Your task to perform on an android device: toggle notifications settings in the gmail app Image 0: 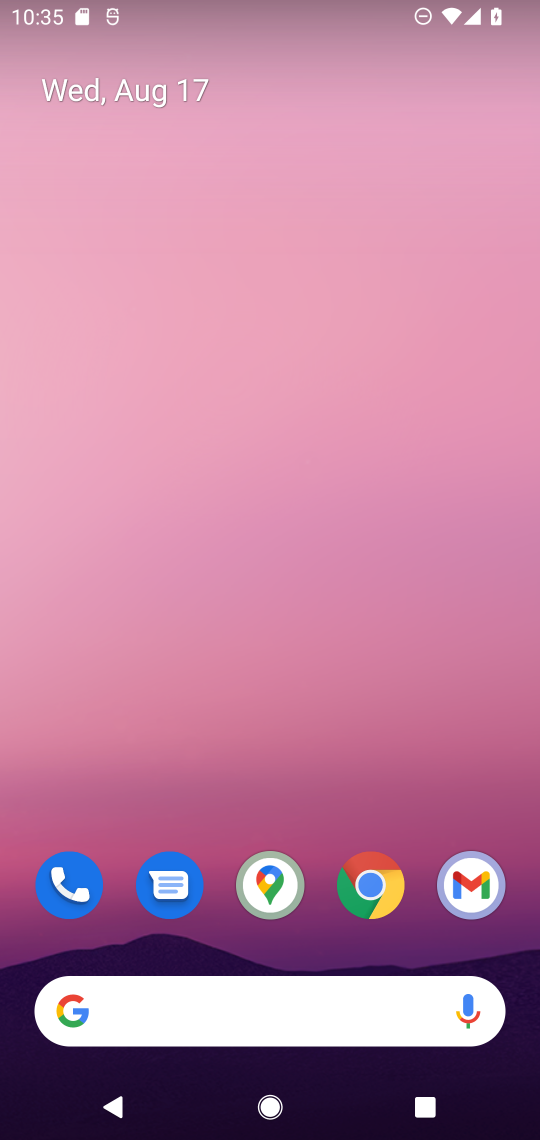
Step 0: click (467, 885)
Your task to perform on an android device: toggle notifications settings in the gmail app Image 1: 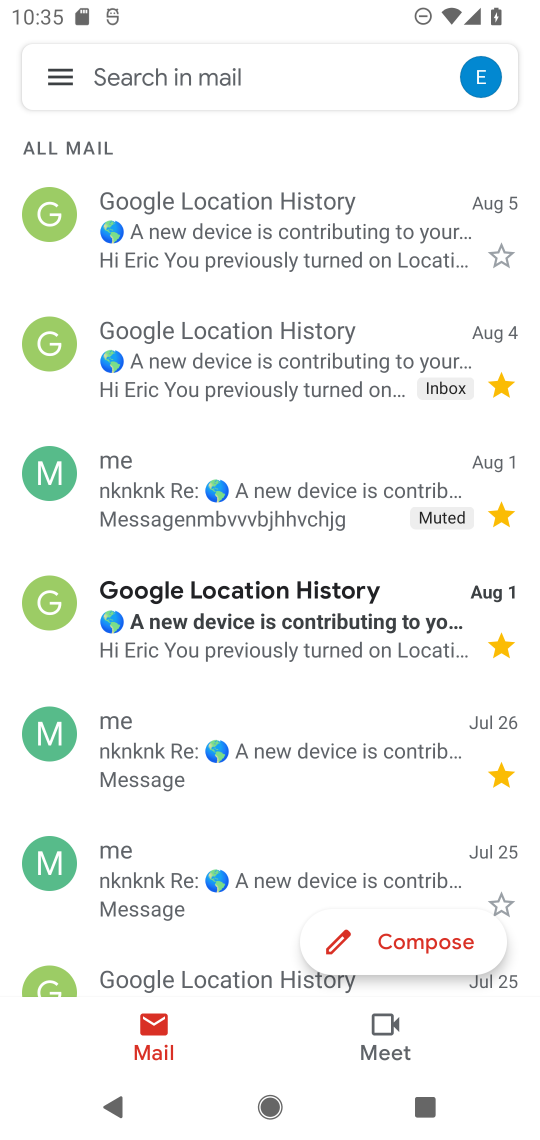
Step 1: click (59, 81)
Your task to perform on an android device: toggle notifications settings in the gmail app Image 2: 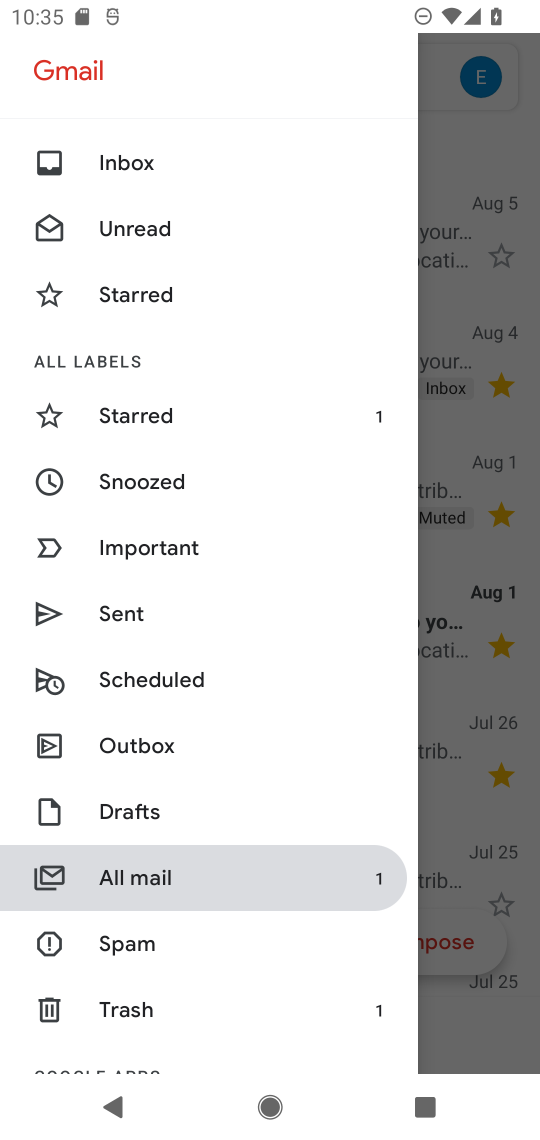
Step 2: drag from (272, 938) to (273, 350)
Your task to perform on an android device: toggle notifications settings in the gmail app Image 3: 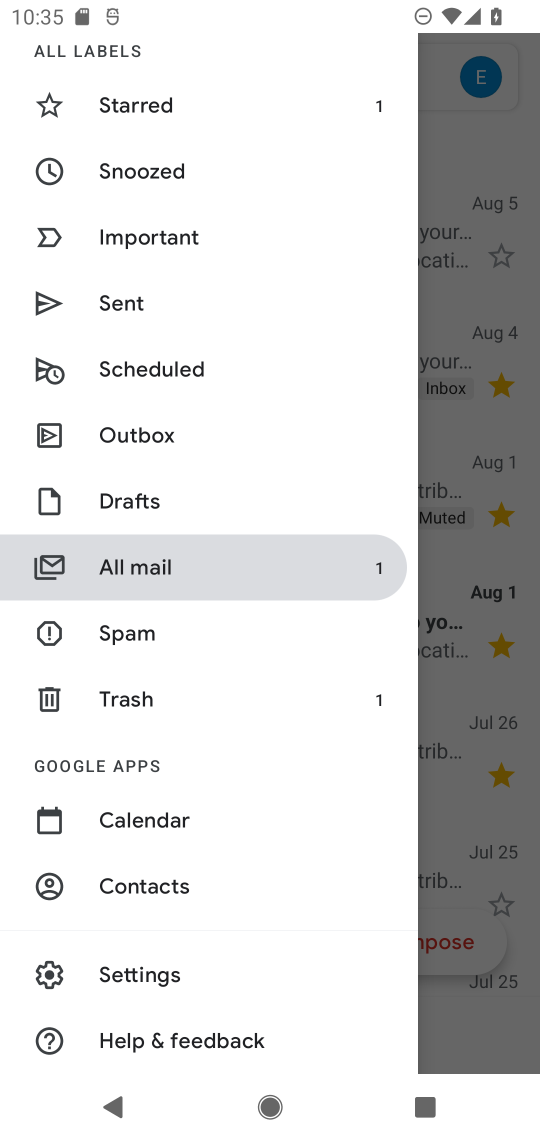
Step 3: click (143, 969)
Your task to perform on an android device: toggle notifications settings in the gmail app Image 4: 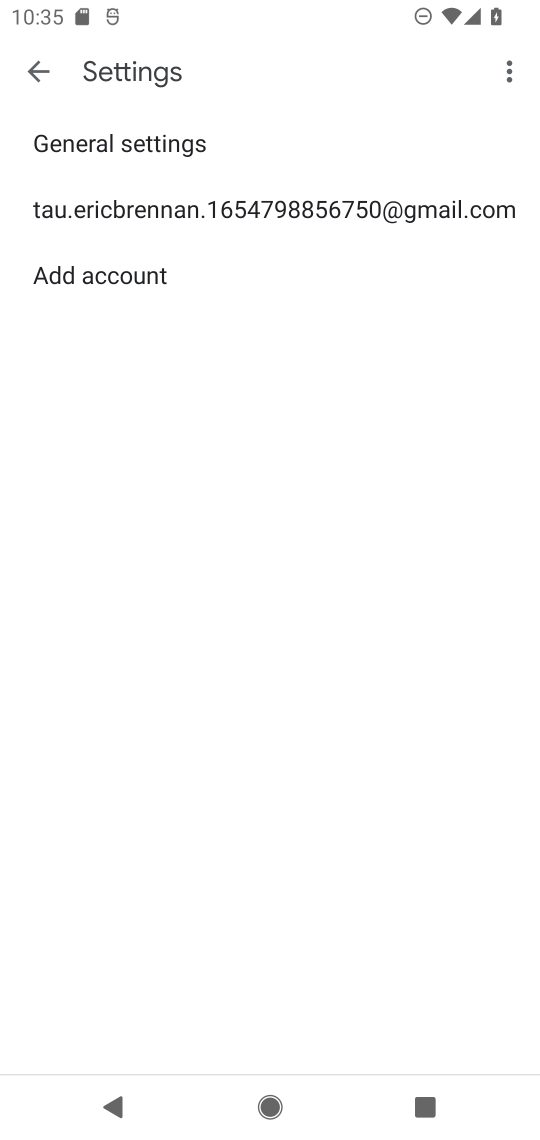
Step 4: click (213, 202)
Your task to perform on an android device: toggle notifications settings in the gmail app Image 5: 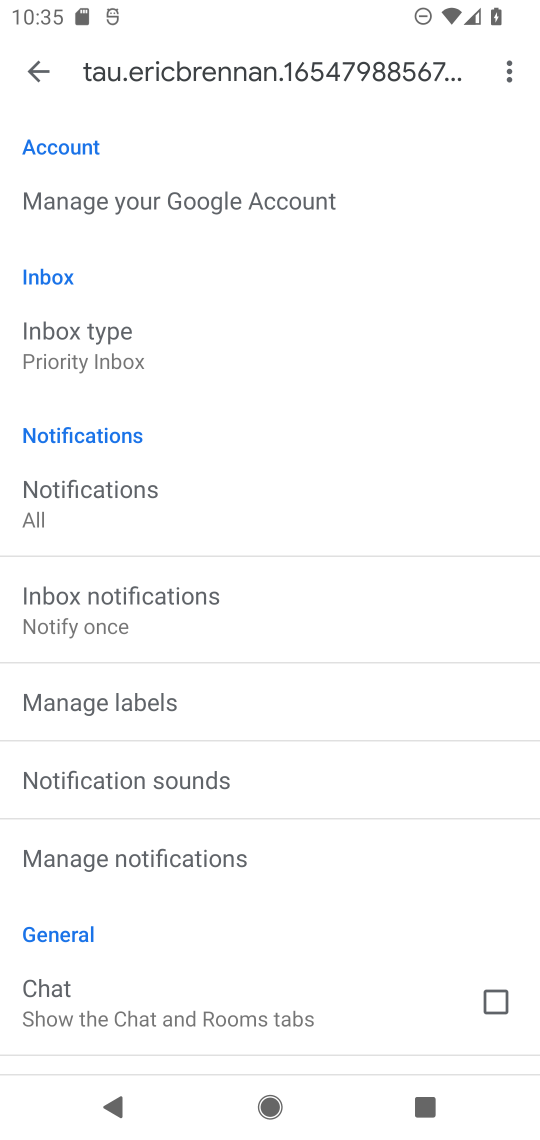
Step 5: click (166, 873)
Your task to perform on an android device: toggle notifications settings in the gmail app Image 6: 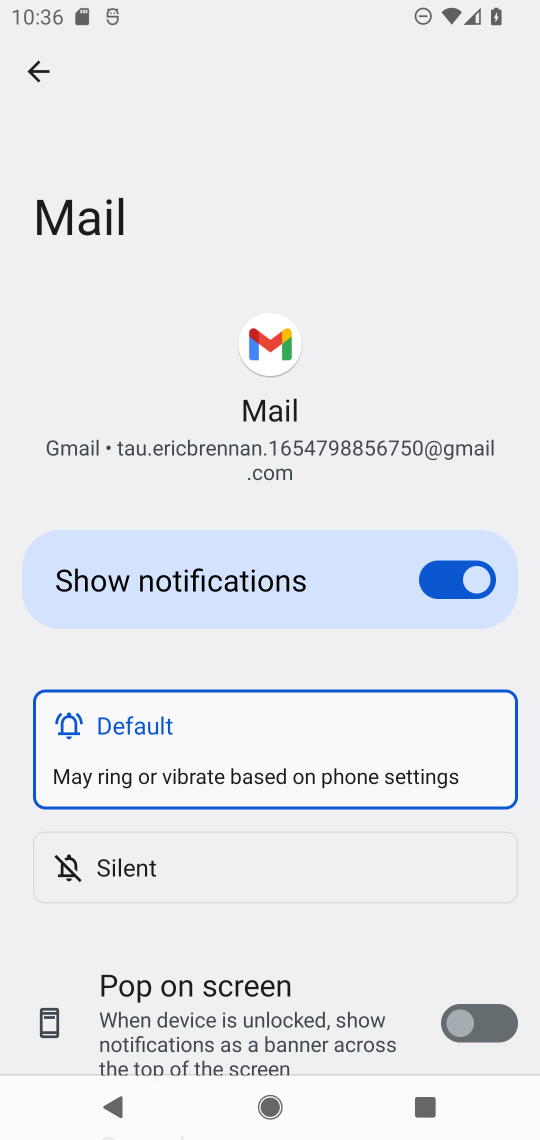
Step 6: click (439, 581)
Your task to perform on an android device: toggle notifications settings in the gmail app Image 7: 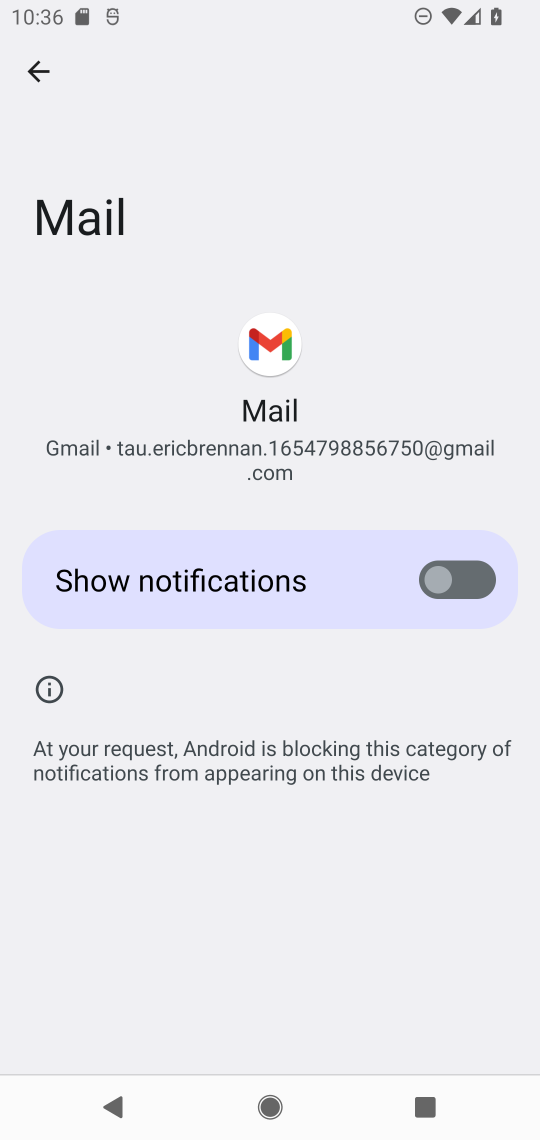
Step 7: task complete